Your task to perform on an android device: Go to accessibility settings Image 0: 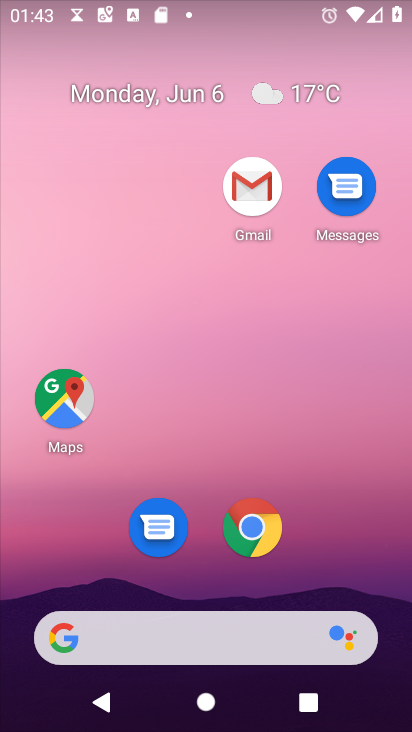
Step 0: drag from (362, 569) to (315, 77)
Your task to perform on an android device: Go to accessibility settings Image 1: 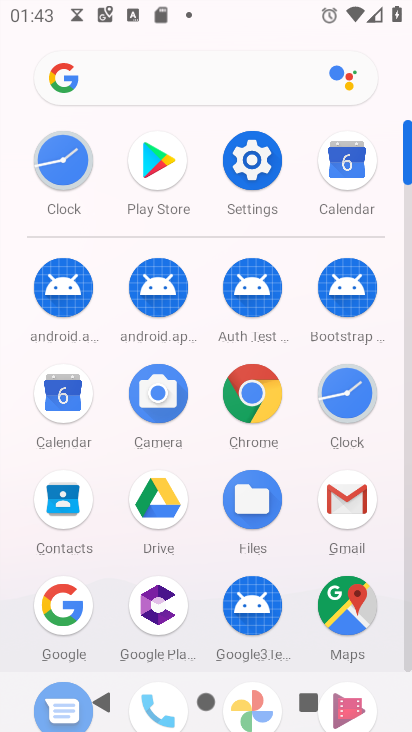
Step 1: click (224, 163)
Your task to perform on an android device: Go to accessibility settings Image 2: 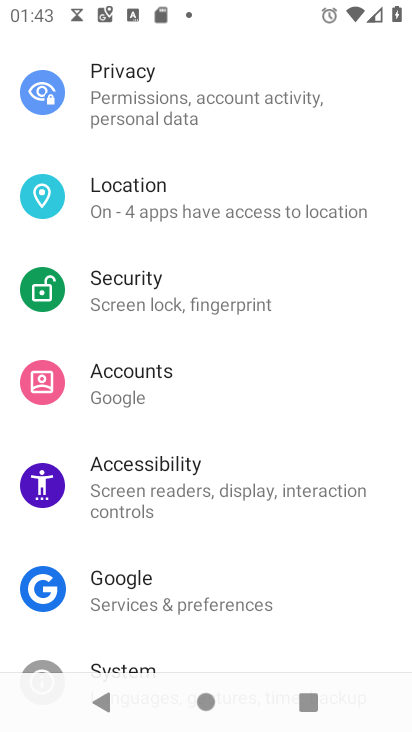
Step 2: click (158, 467)
Your task to perform on an android device: Go to accessibility settings Image 3: 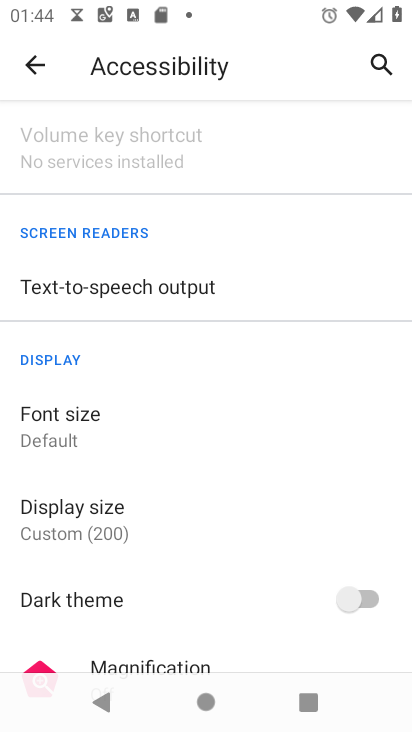
Step 3: task complete